Your task to perform on an android device: toggle improve location accuracy Image 0: 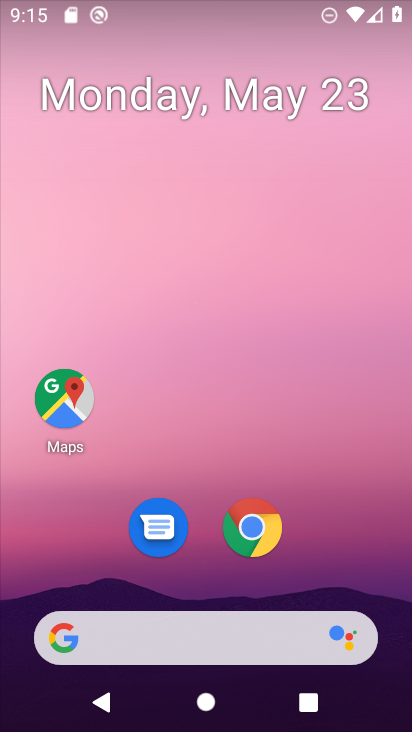
Step 0: drag from (227, 415) to (236, 9)
Your task to perform on an android device: toggle improve location accuracy Image 1: 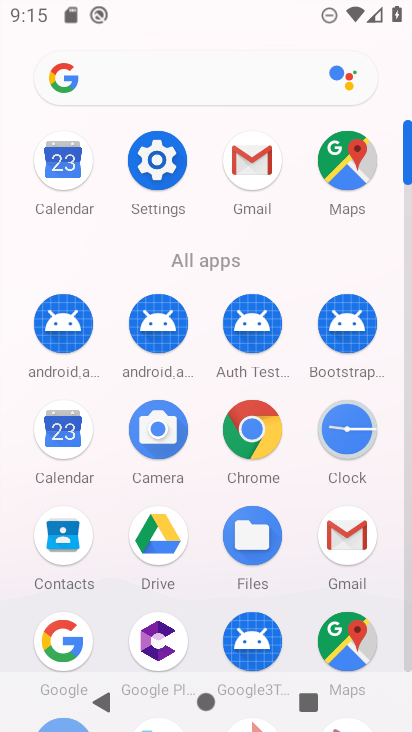
Step 1: click (166, 150)
Your task to perform on an android device: toggle improve location accuracy Image 2: 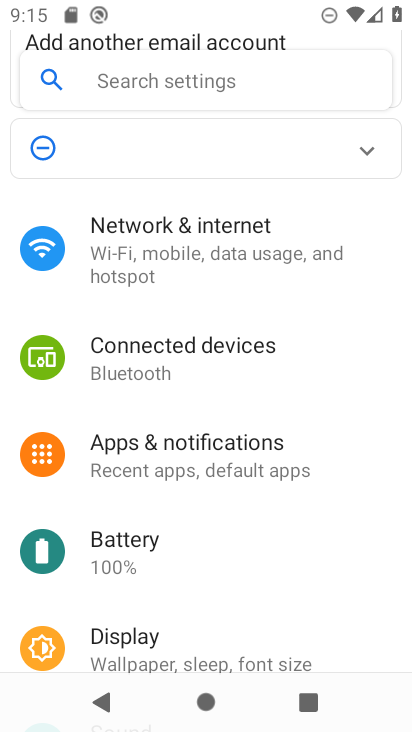
Step 2: drag from (229, 513) to (229, 115)
Your task to perform on an android device: toggle improve location accuracy Image 3: 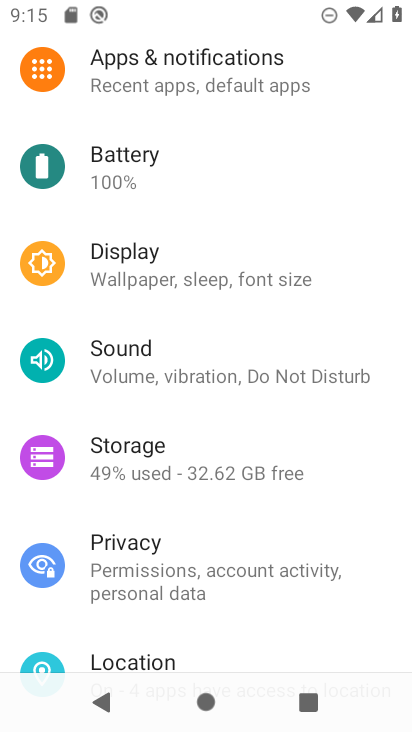
Step 3: drag from (211, 557) to (235, 305)
Your task to perform on an android device: toggle improve location accuracy Image 4: 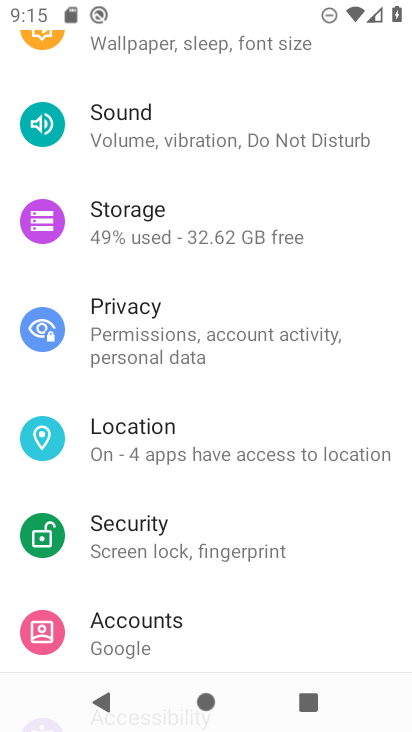
Step 4: click (197, 432)
Your task to perform on an android device: toggle improve location accuracy Image 5: 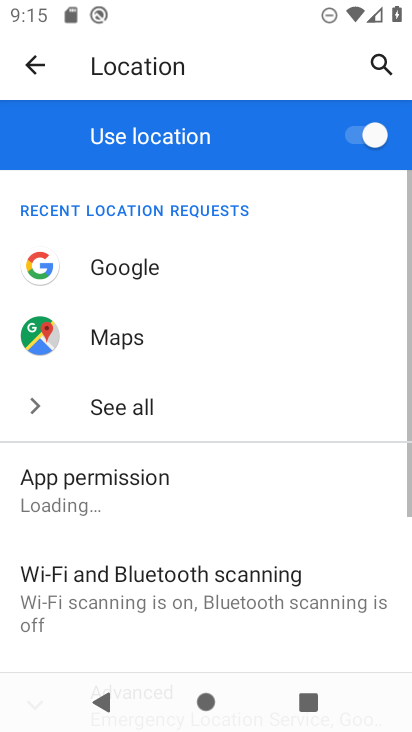
Step 5: drag from (195, 509) to (252, 148)
Your task to perform on an android device: toggle improve location accuracy Image 6: 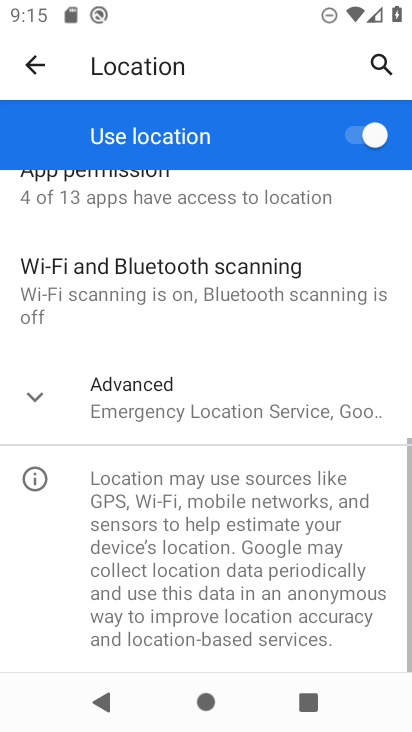
Step 6: click (37, 394)
Your task to perform on an android device: toggle improve location accuracy Image 7: 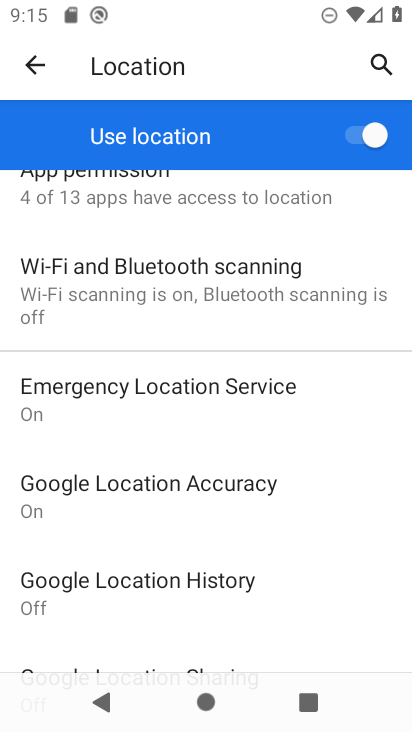
Step 7: click (246, 489)
Your task to perform on an android device: toggle improve location accuracy Image 8: 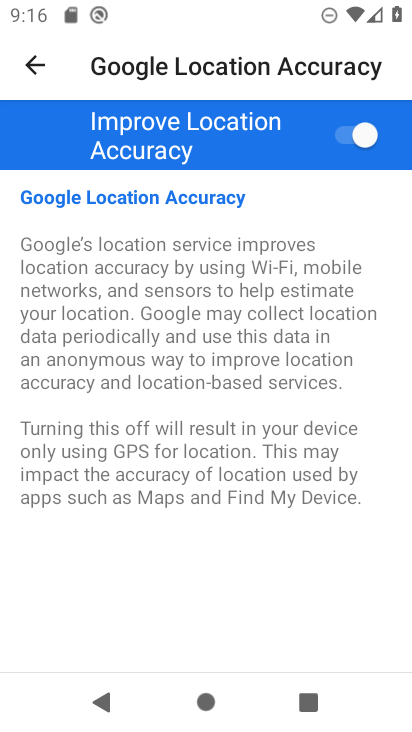
Step 8: click (355, 133)
Your task to perform on an android device: toggle improve location accuracy Image 9: 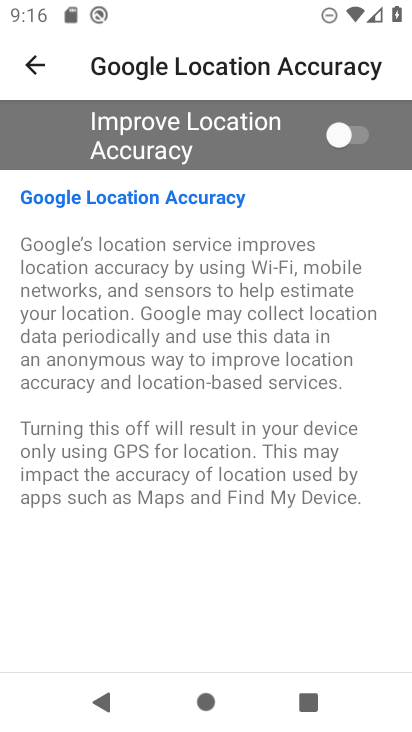
Step 9: task complete